Your task to perform on an android device: Check the news Image 0: 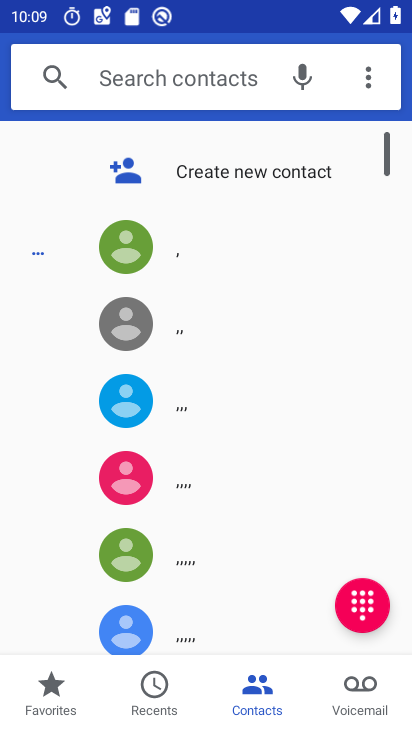
Step 0: press home button
Your task to perform on an android device: Check the news Image 1: 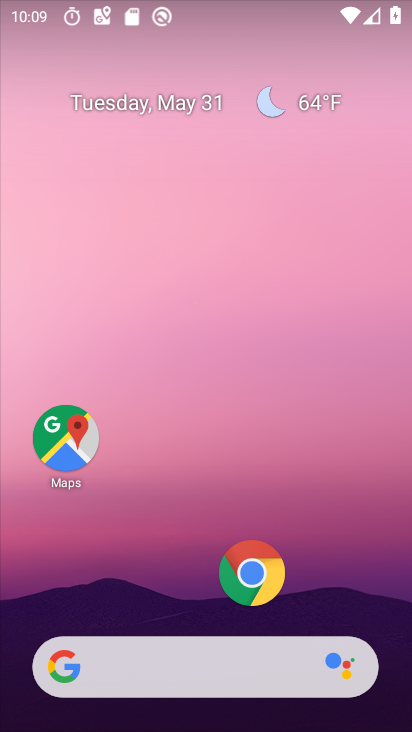
Step 1: click (132, 660)
Your task to perform on an android device: Check the news Image 2: 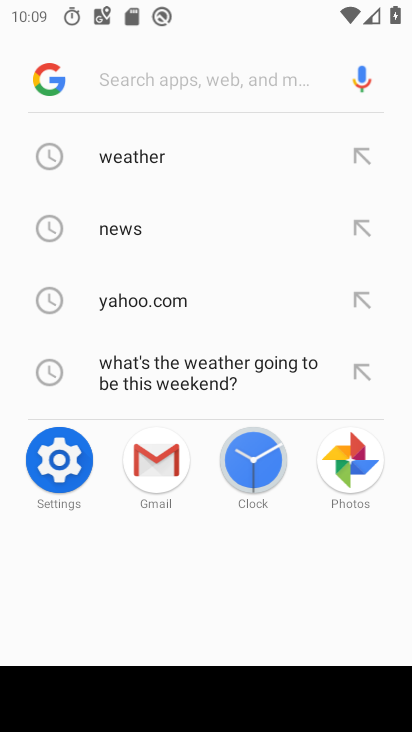
Step 2: click (202, 219)
Your task to perform on an android device: Check the news Image 3: 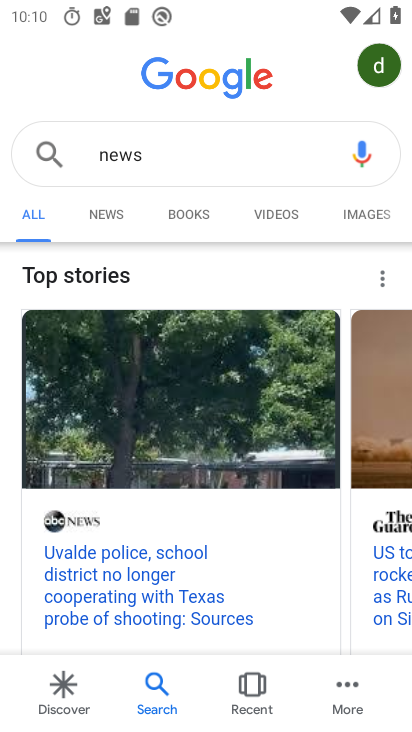
Step 3: task complete